Your task to perform on an android device: Open settings on Google Maps Image 0: 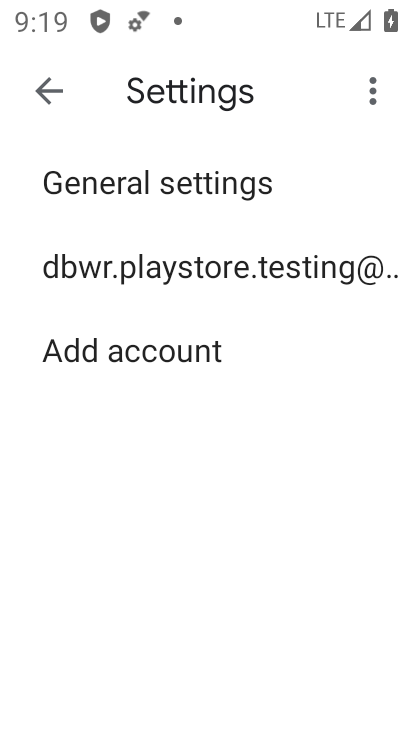
Step 0: press home button
Your task to perform on an android device: Open settings on Google Maps Image 1: 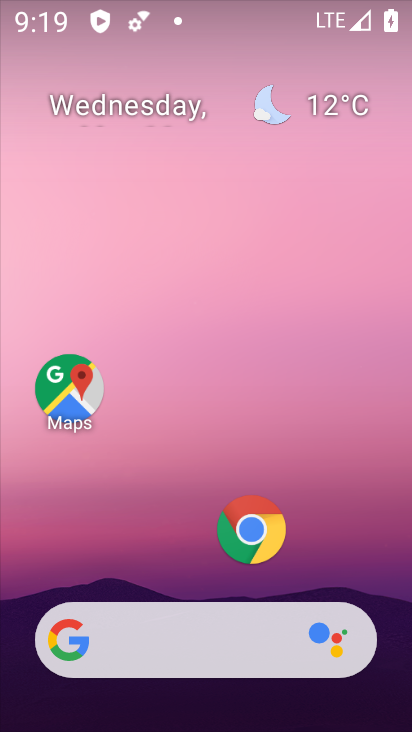
Step 1: click (62, 362)
Your task to perform on an android device: Open settings on Google Maps Image 2: 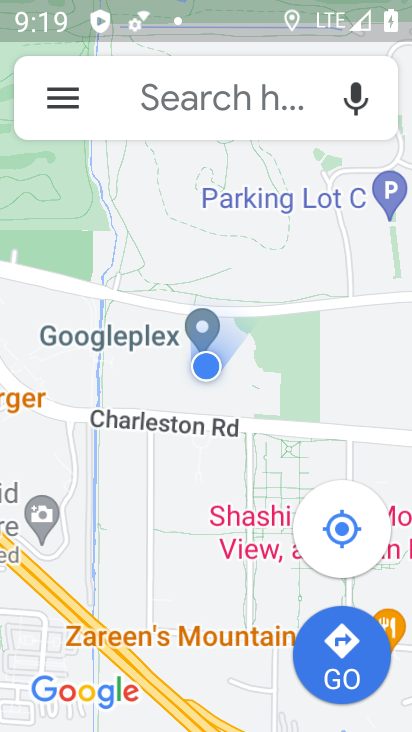
Step 2: click (61, 106)
Your task to perform on an android device: Open settings on Google Maps Image 3: 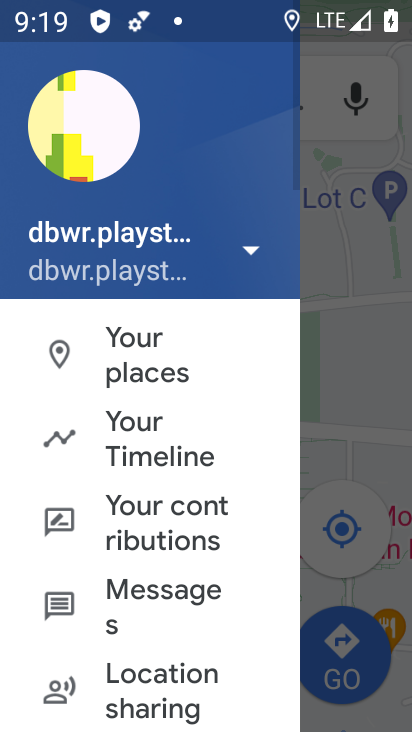
Step 3: drag from (202, 692) to (181, 366)
Your task to perform on an android device: Open settings on Google Maps Image 4: 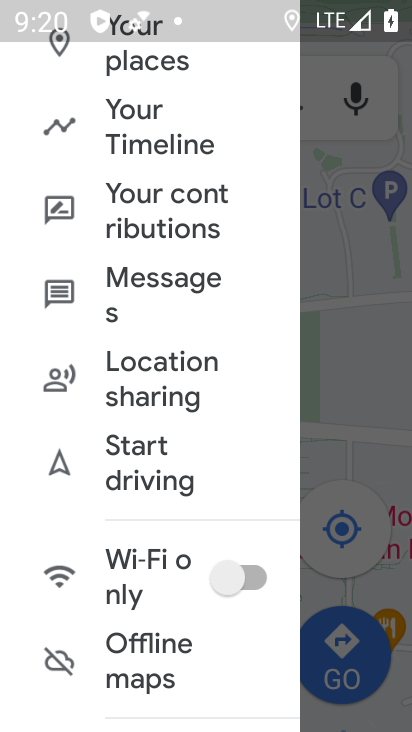
Step 4: drag from (212, 699) to (208, 332)
Your task to perform on an android device: Open settings on Google Maps Image 5: 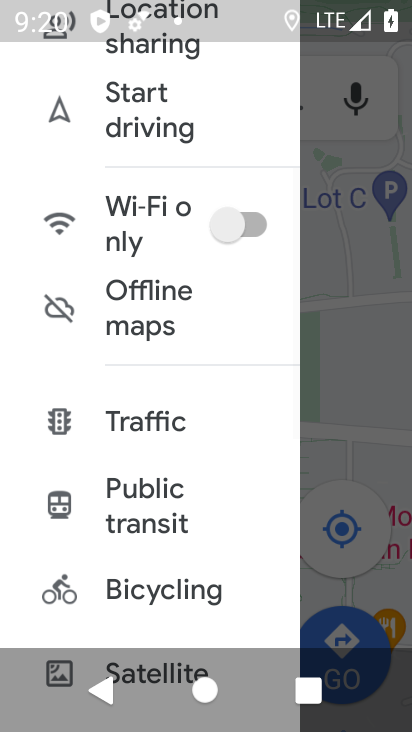
Step 5: drag from (206, 620) to (254, 243)
Your task to perform on an android device: Open settings on Google Maps Image 6: 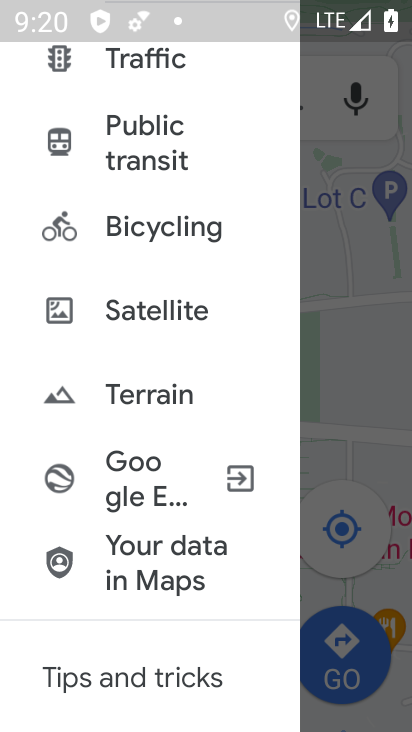
Step 6: drag from (192, 656) to (232, 265)
Your task to perform on an android device: Open settings on Google Maps Image 7: 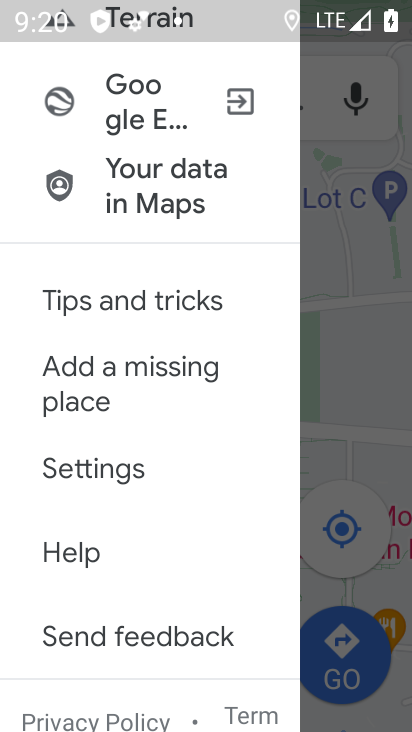
Step 7: click (110, 471)
Your task to perform on an android device: Open settings on Google Maps Image 8: 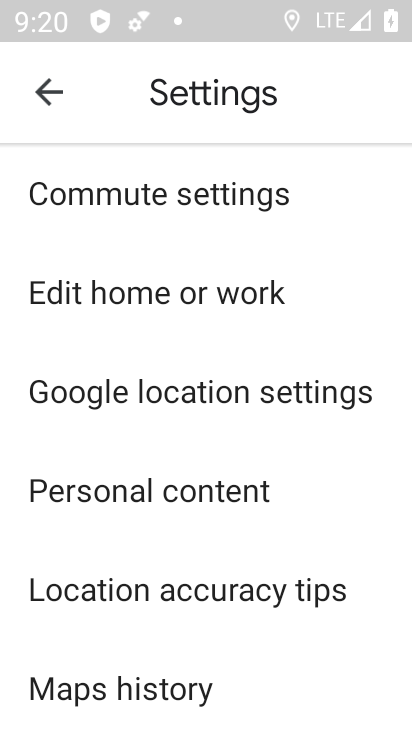
Step 8: task complete